Your task to perform on an android device: check battery use Image 0: 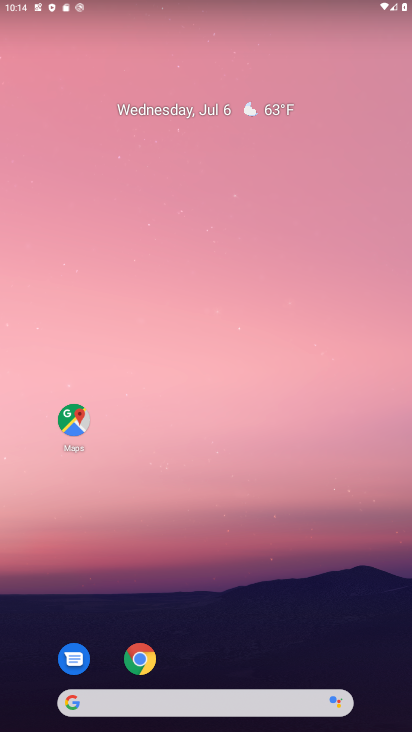
Step 0: click (411, 548)
Your task to perform on an android device: check battery use Image 1: 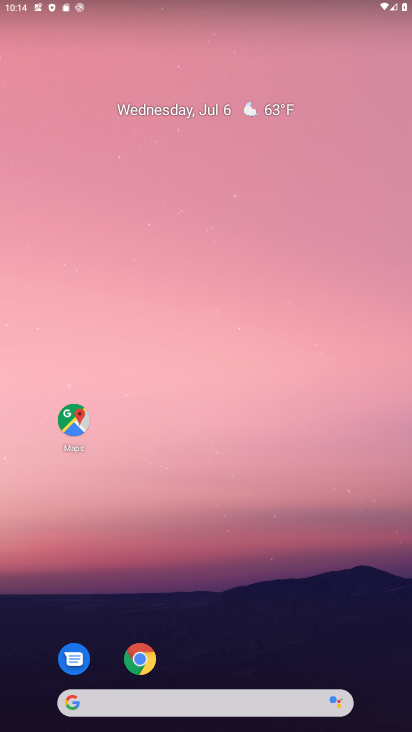
Step 1: drag from (213, 617) to (307, 195)
Your task to perform on an android device: check battery use Image 2: 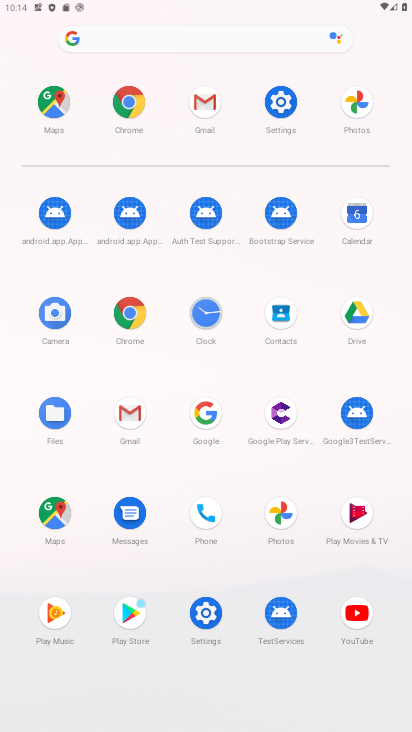
Step 2: click (273, 105)
Your task to perform on an android device: check battery use Image 3: 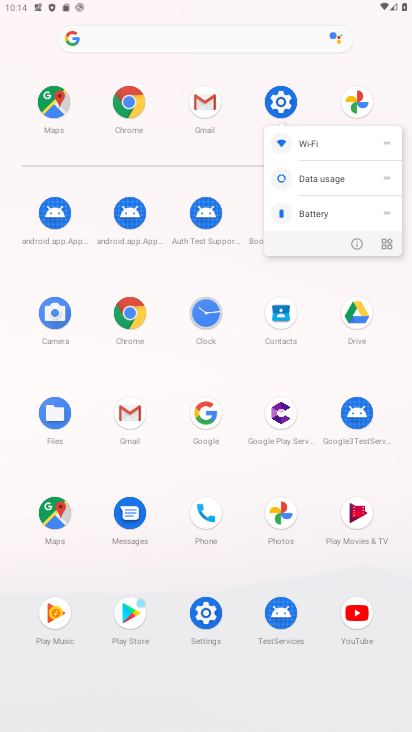
Step 3: click (351, 244)
Your task to perform on an android device: check battery use Image 4: 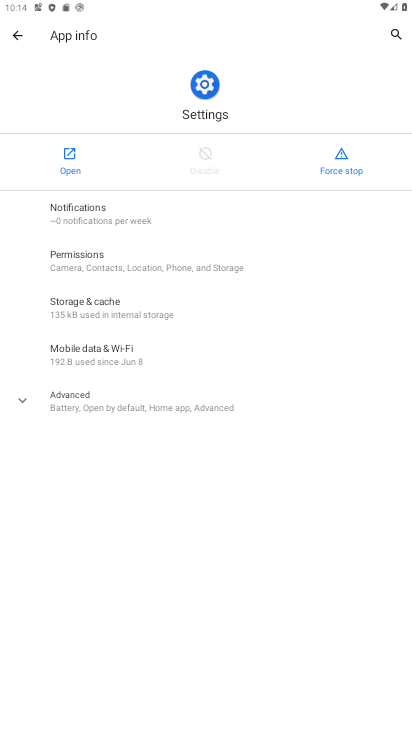
Step 4: click (73, 159)
Your task to perform on an android device: check battery use Image 5: 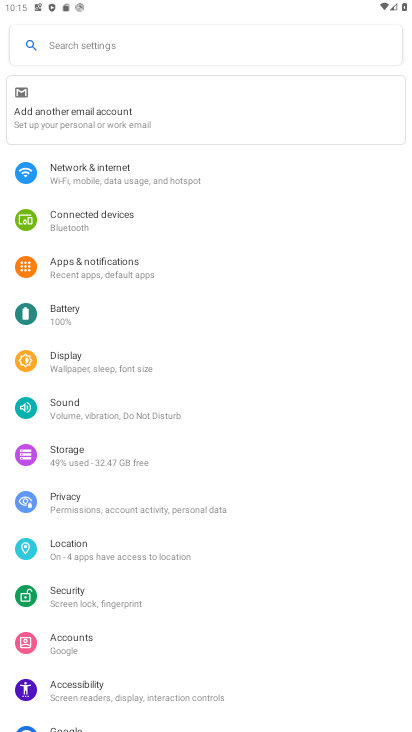
Step 5: drag from (231, 411) to (260, 66)
Your task to perform on an android device: check battery use Image 6: 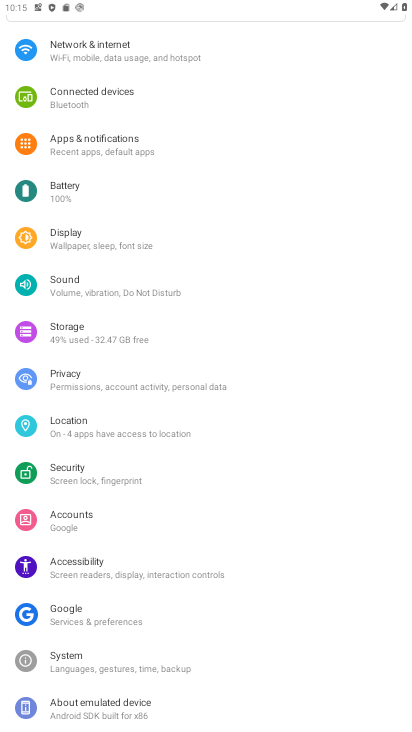
Step 6: click (78, 179)
Your task to perform on an android device: check battery use Image 7: 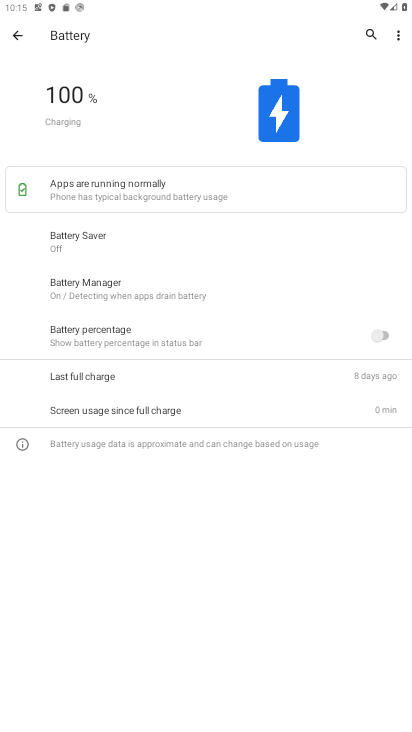
Step 7: click (401, 31)
Your task to perform on an android device: check battery use Image 8: 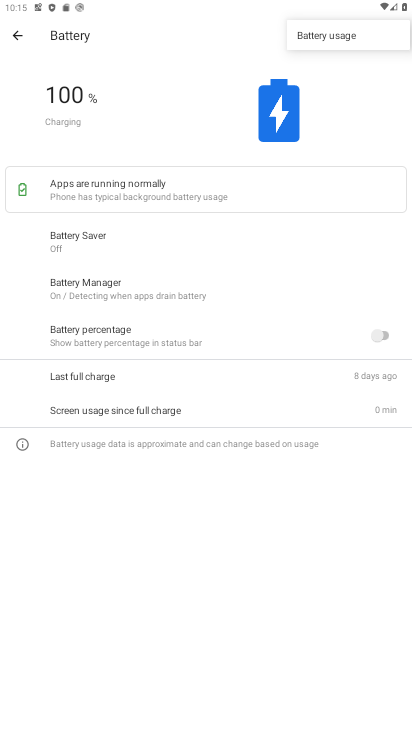
Step 8: click (322, 37)
Your task to perform on an android device: check battery use Image 9: 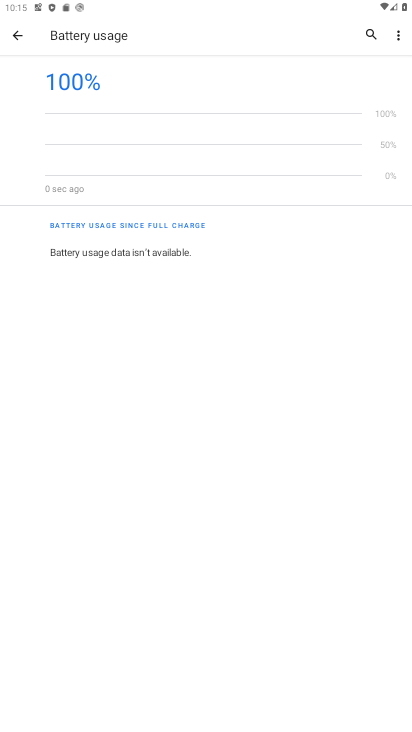
Step 9: drag from (139, 475) to (147, 240)
Your task to perform on an android device: check battery use Image 10: 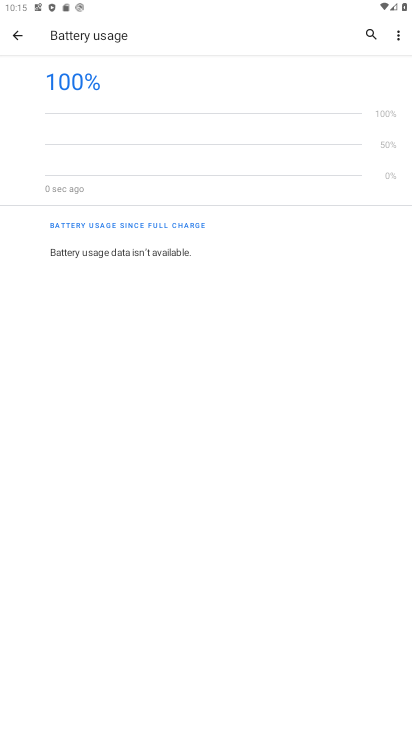
Step 10: click (395, 32)
Your task to perform on an android device: check battery use Image 11: 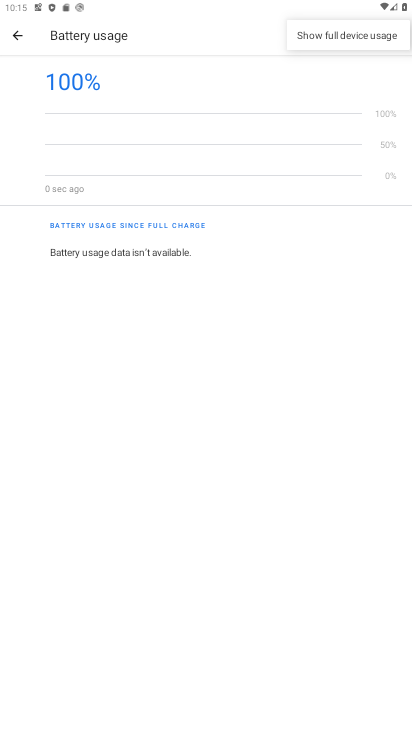
Step 11: task complete